Your task to perform on an android device: Add "logitech g933" to the cart on target Image 0: 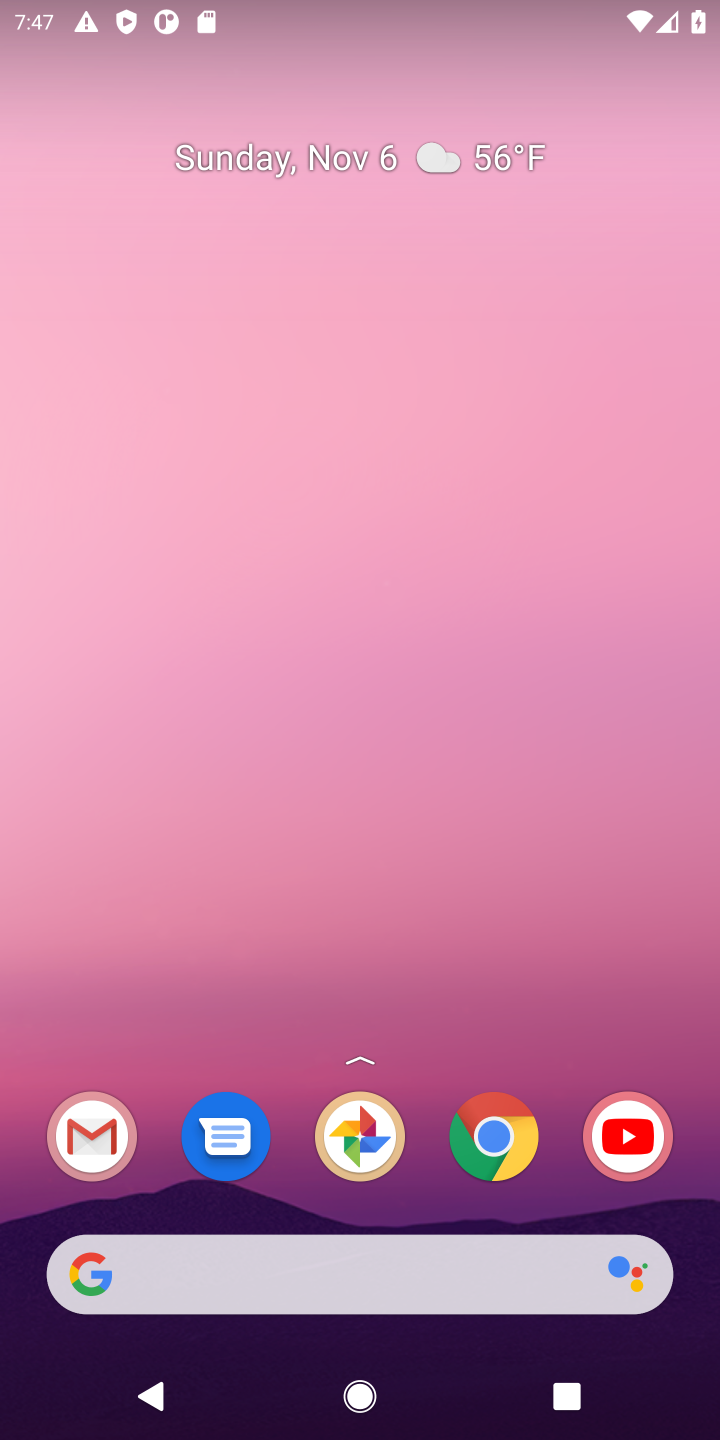
Step 0: task complete